Your task to perform on an android device: open device folders in google photos Image 0: 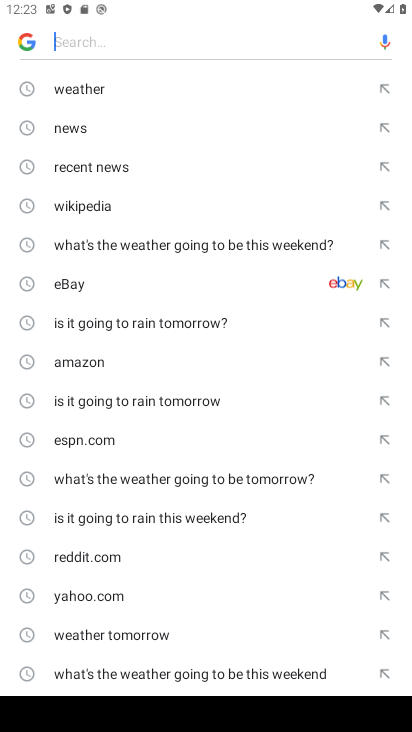
Step 0: press home button
Your task to perform on an android device: open device folders in google photos Image 1: 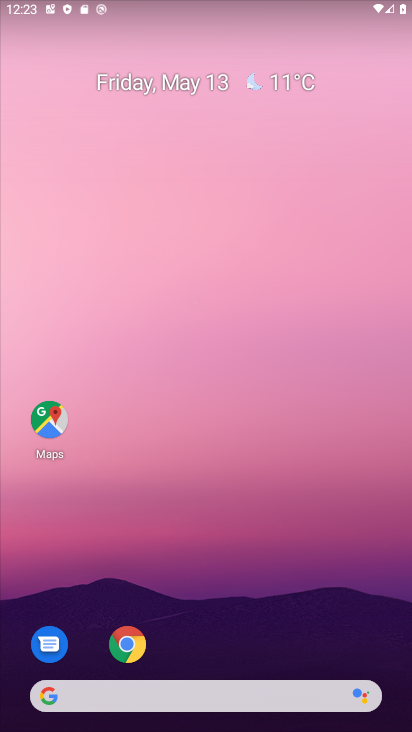
Step 1: drag from (218, 725) to (226, 179)
Your task to perform on an android device: open device folders in google photos Image 2: 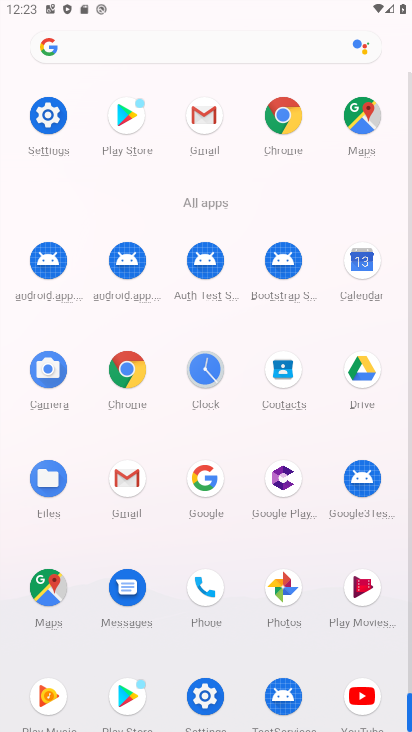
Step 2: click (279, 577)
Your task to perform on an android device: open device folders in google photos Image 3: 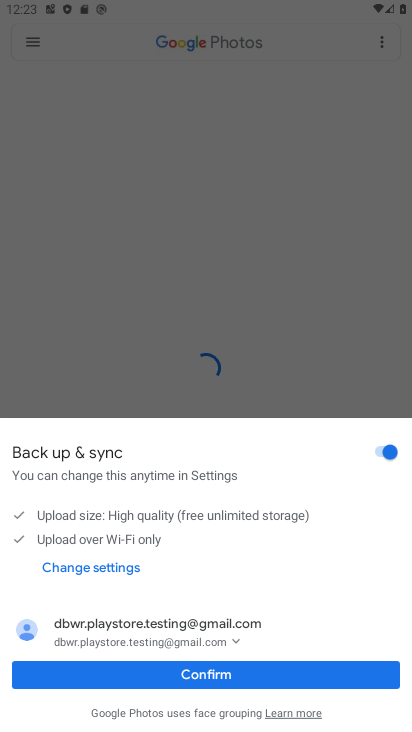
Step 3: click (211, 675)
Your task to perform on an android device: open device folders in google photos Image 4: 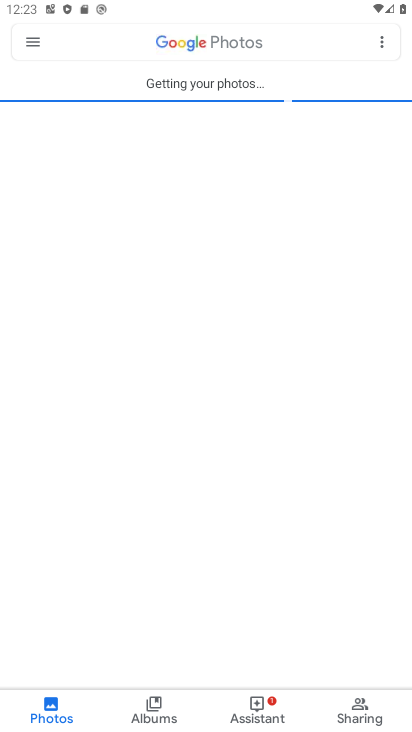
Step 4: click (30, 43)
Your task to perform on an android device: open device folders in google photos Image 5: 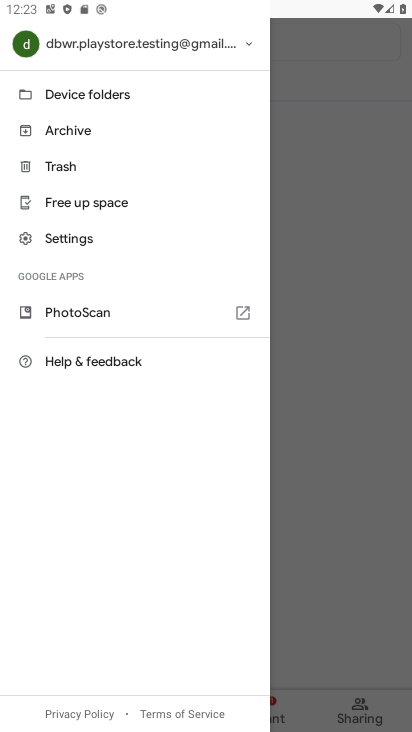
Step 5: click (104, 89)
Your task to perform on an android device: open device folders in google photos Image 6: 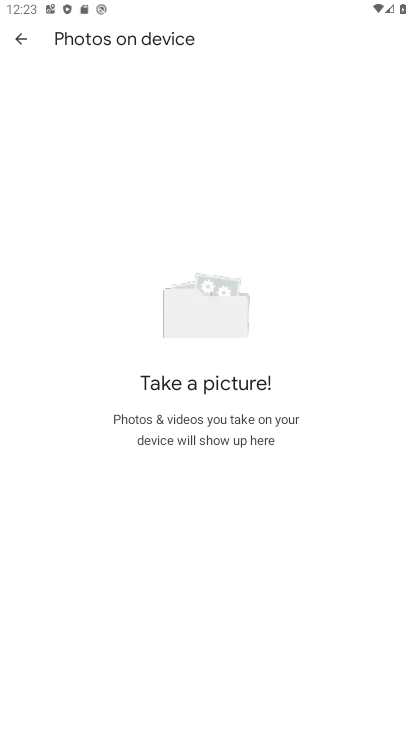
Step 6: task complete